Your task to perform on an android device: Go to battery settings Image 0: 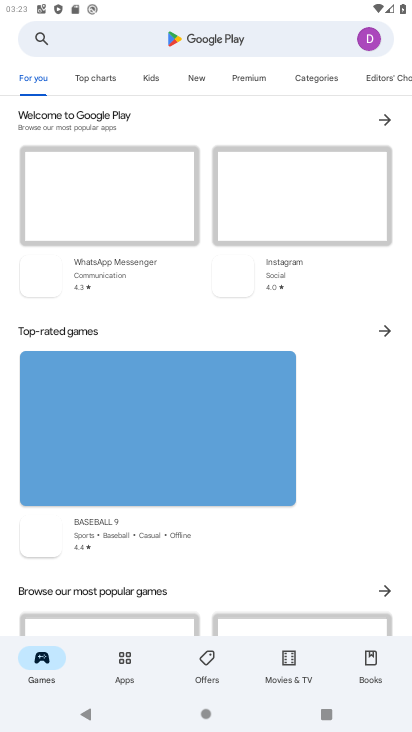
Step 0: press home button
Your task to perform on an android device: Go to battery settings Image 1: 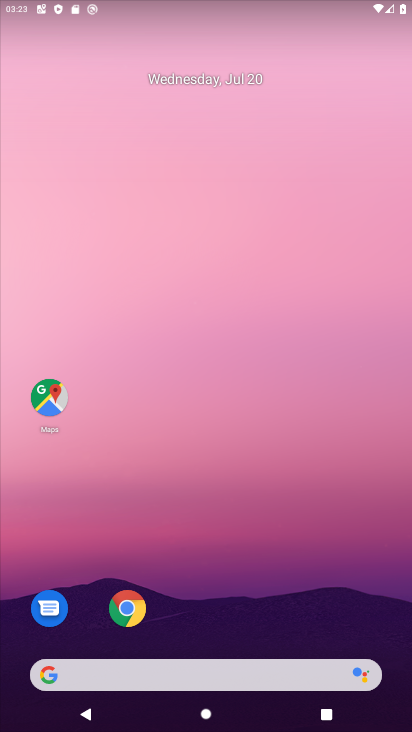
Step 1: drag from (373, 676) to (301, 18)
Your task to perform on an android device: Go to battery settings Image 2: 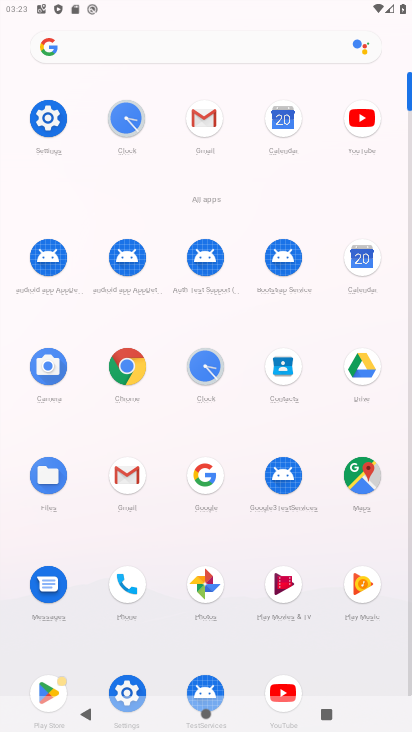
Step 2: click (48, 113)
Your task to perform on an android device: Go to battery settings Image 3: 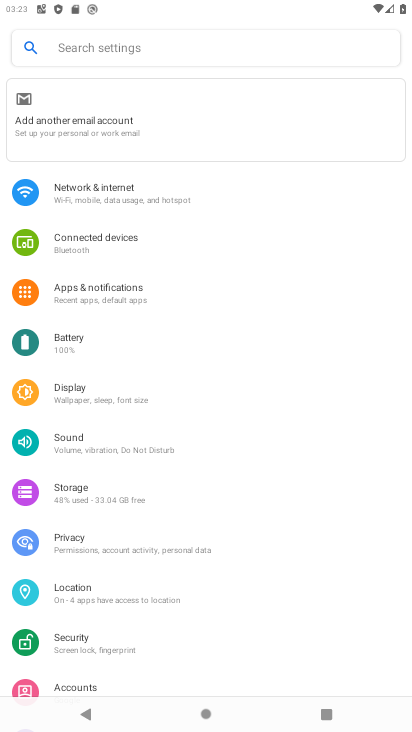
Step 3: click (73, 344)
Your task to perform on an android device: Go to battery settings Image 4: 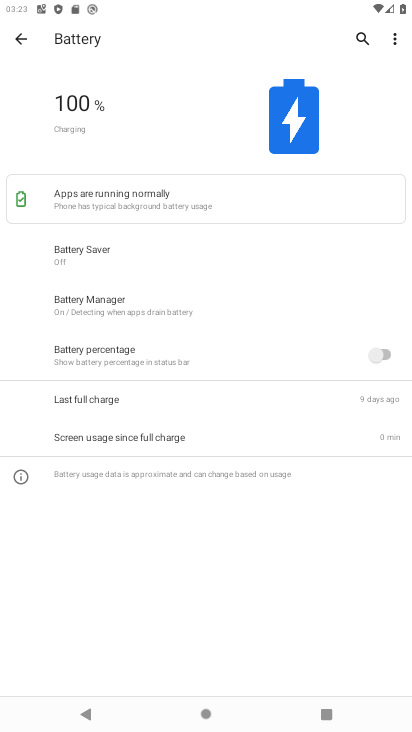
Step 4: task complete